Your task to perform on an android device: open app "Google Play services" (install if not already installed) Image 0: 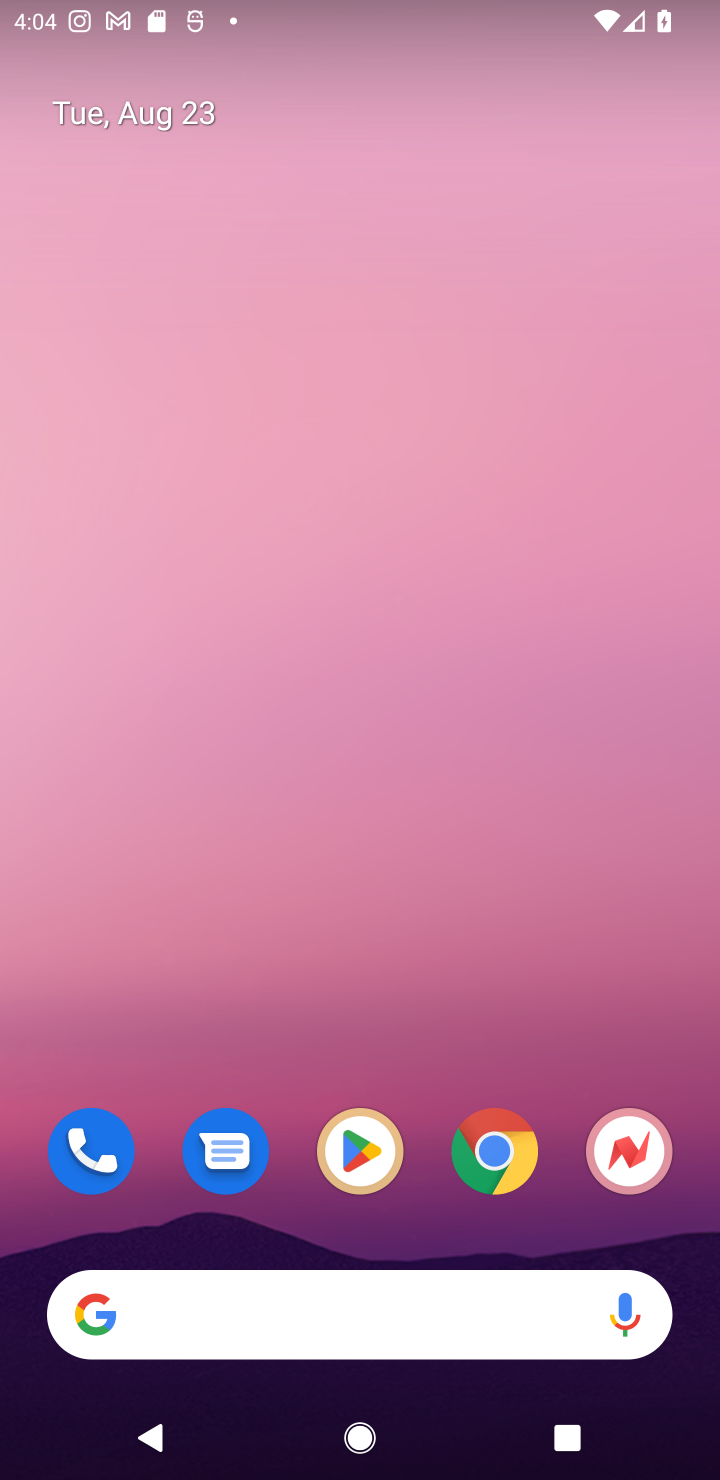
Step 0: click (366, 1141)
Your task to perform on an android device: open app "Google Play services" (install if not already installed) Image 1: 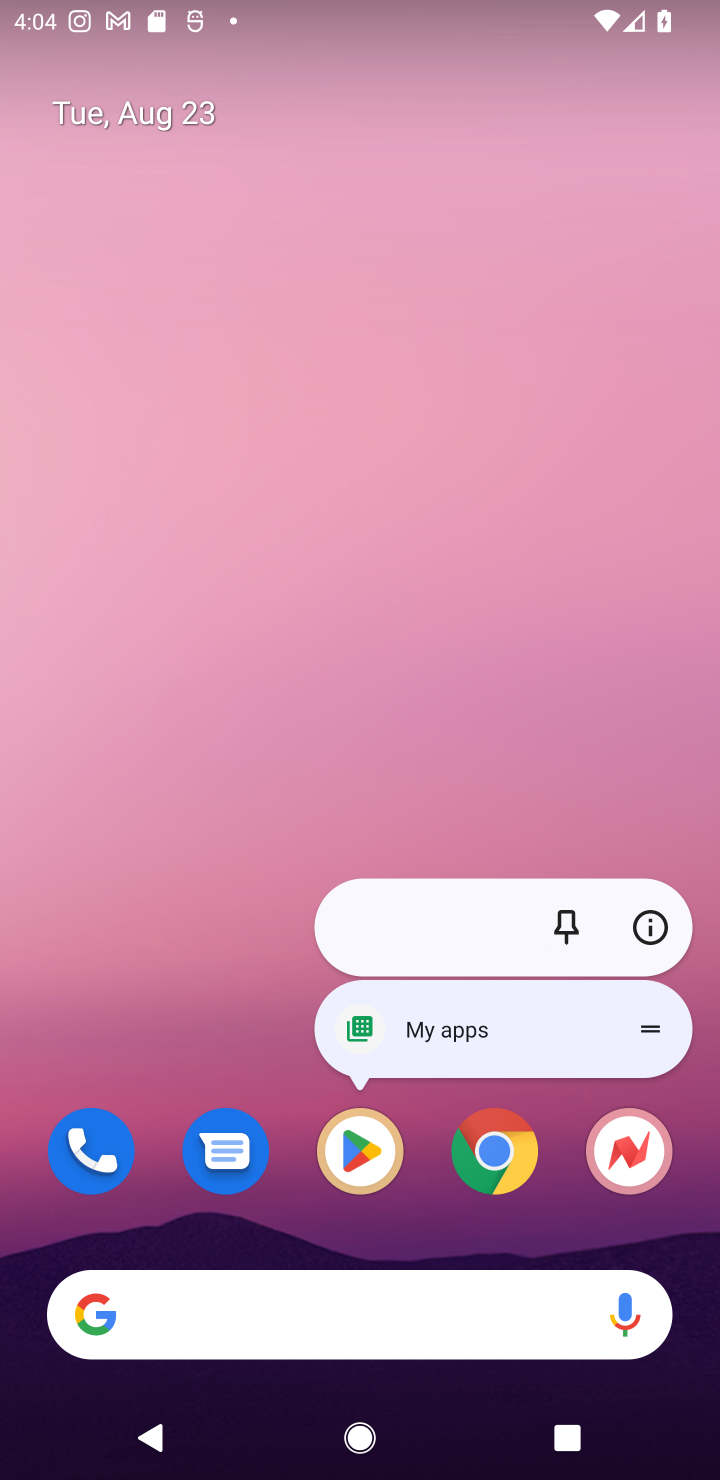
Step 1: click (349, 1148)
Your task to perform on an android device: open app "Google Play services" (install if not already installed) Image 2: 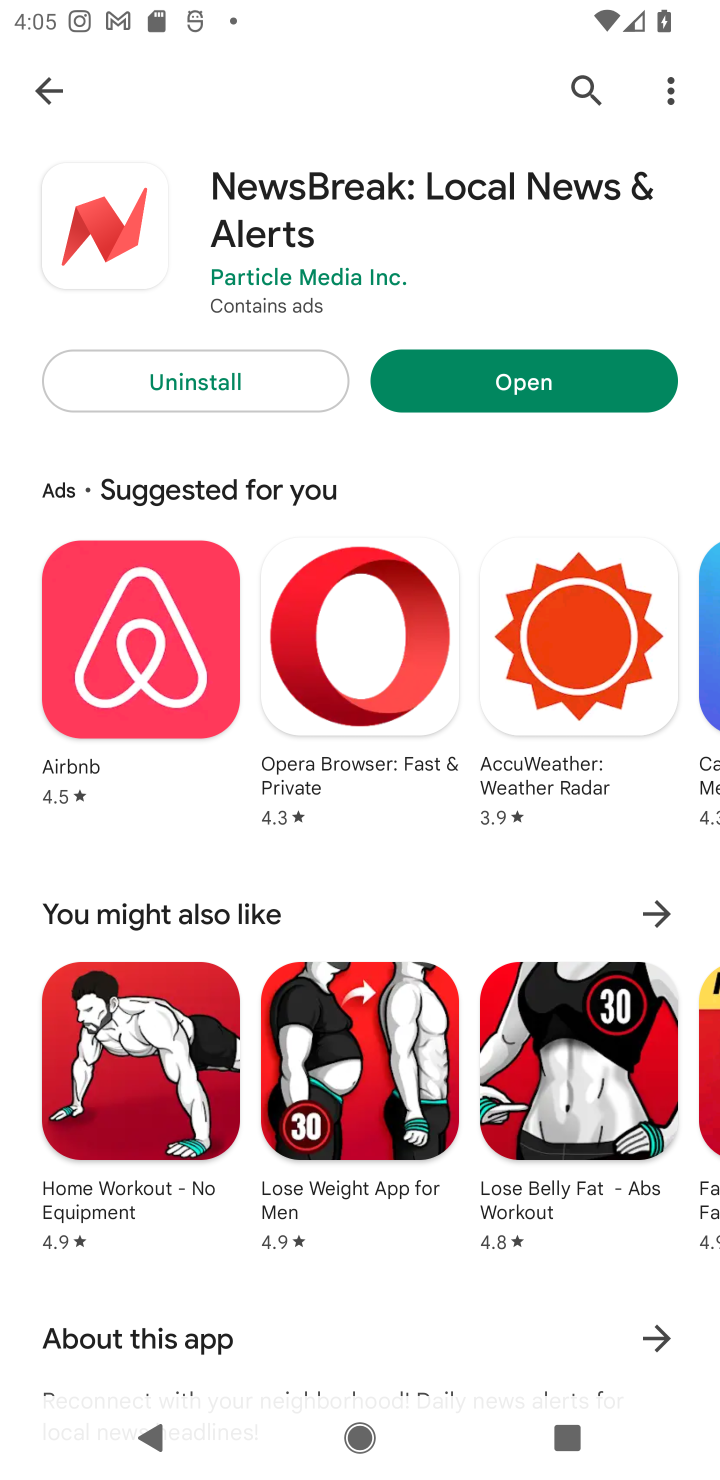
Step 2: click (581, 78)
Your task to perform on an android device: open app "Google Play services" (install if not already installed) Image 3: 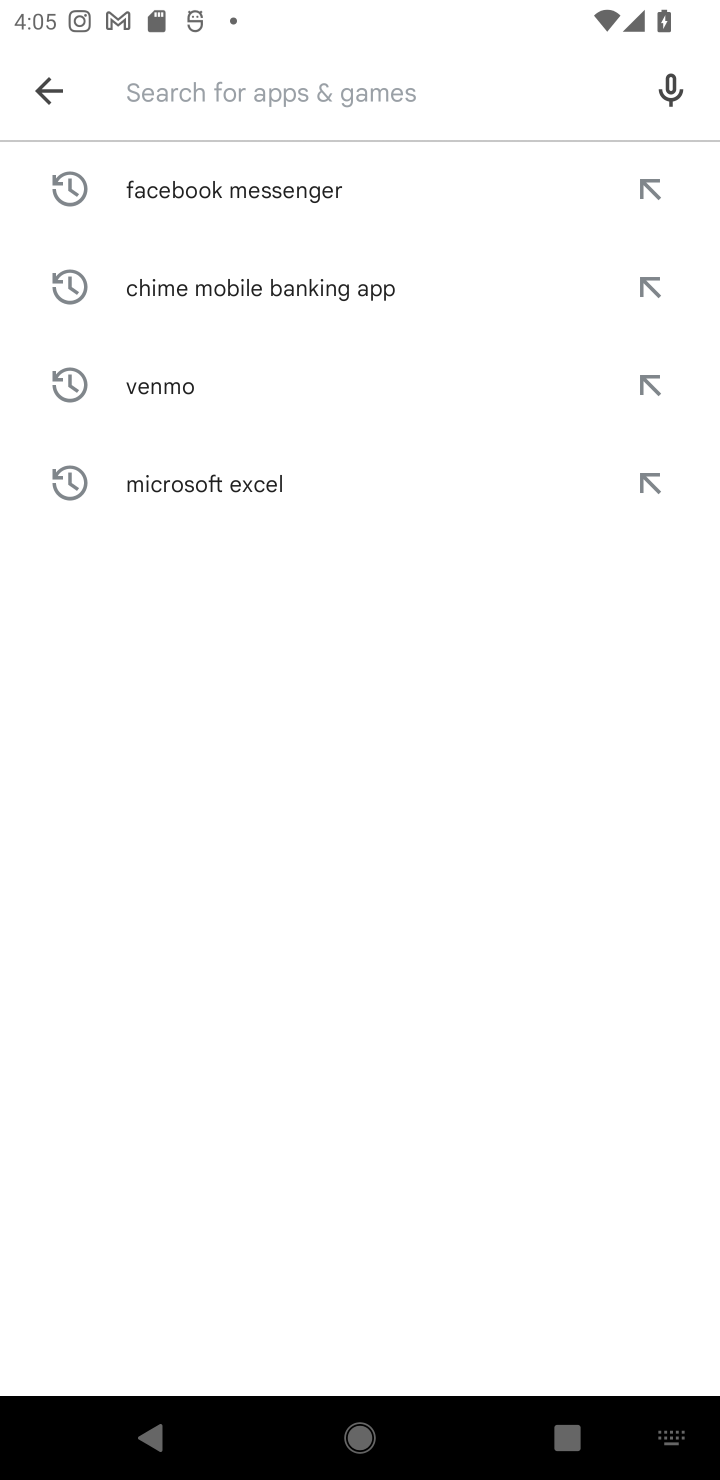
Step 3: type "Google Play services"
Your task to perform on an android device: open app "Google Play services" (install if not already installed) Image 4: 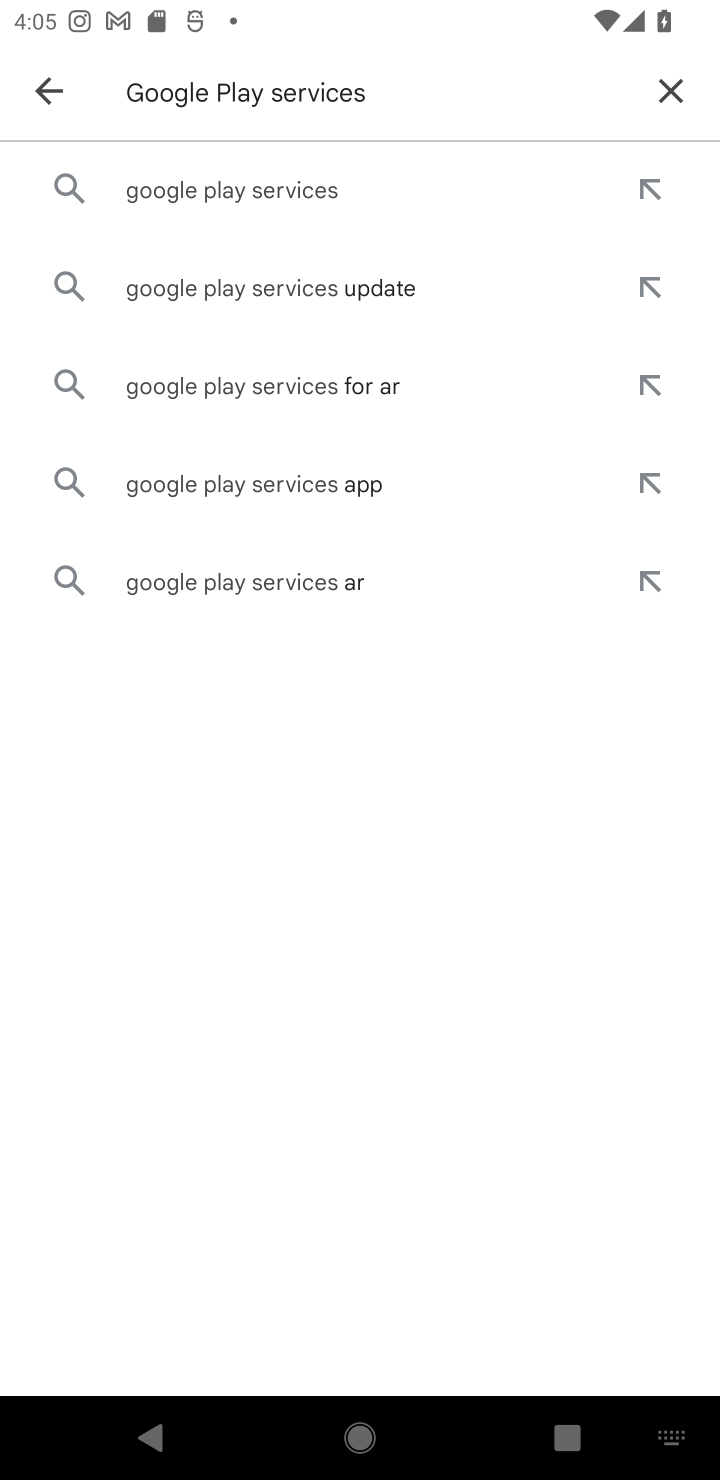
Step 4: click (266, 179)
Your task to perform on an android device: open app "Google Play services" (install if not already installed) Image 5: 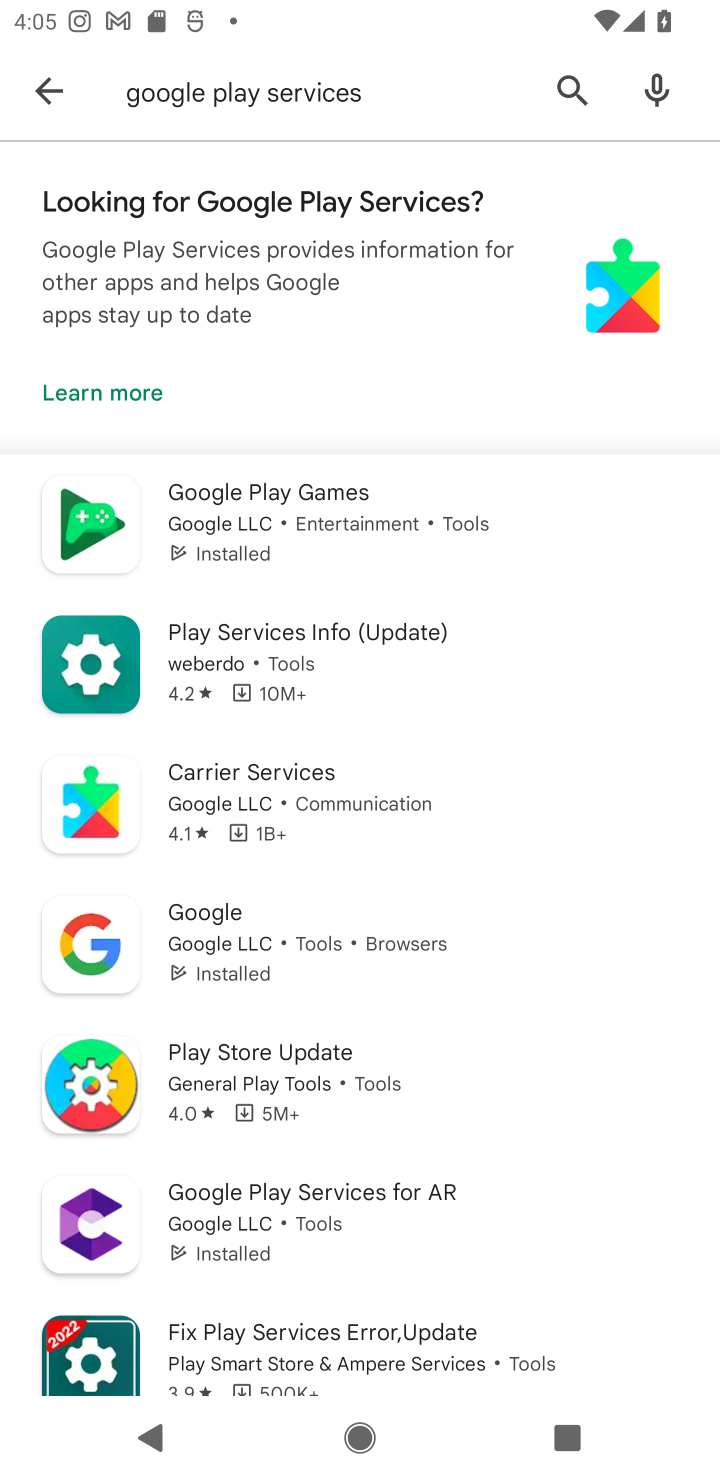
Step 5: task complete